Your task to perform on an android device: Check the weather Image 0: 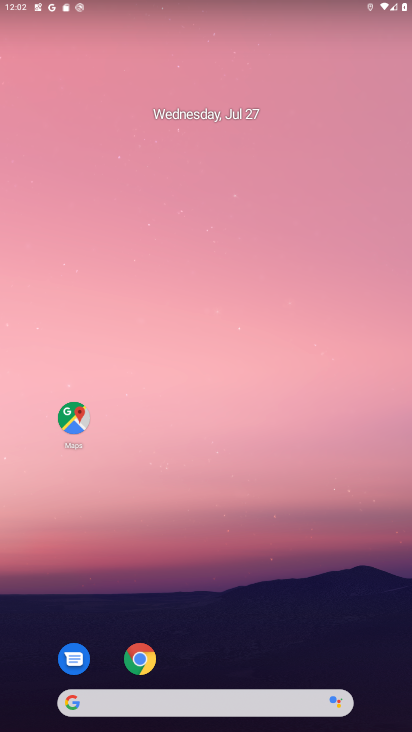
Step 0: drag from (184, 705) to (205, 56)
Your task to perform on an android device: Check the weather Image 1: 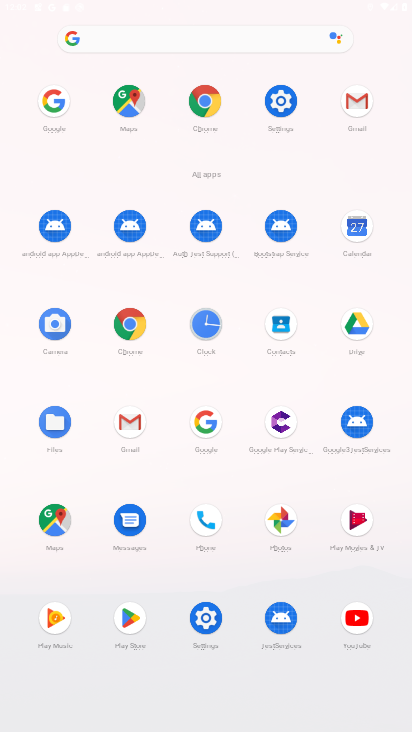
Step 1: click (137, 326)
Your task to perform on an android device: Check the weather Image 2: 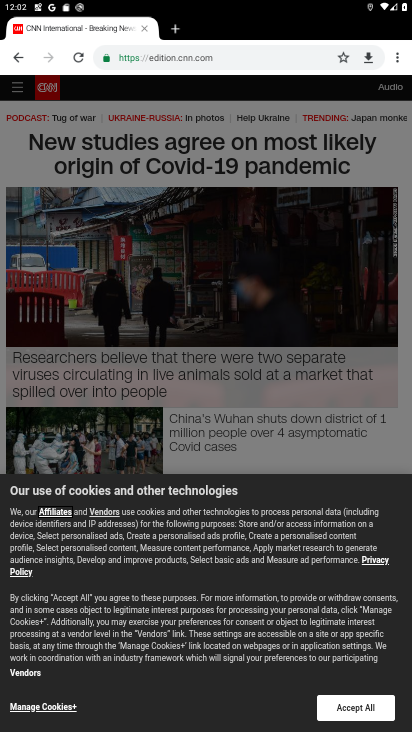
Step 2: click (239, 66)
Your task to perform on an android device: Check the weather Image 3: 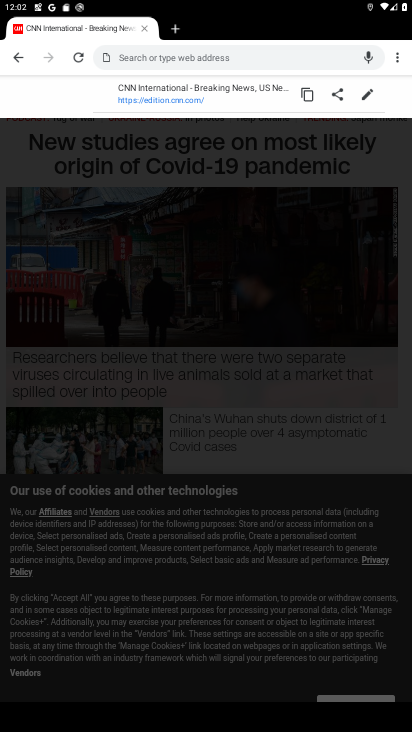
Step 3: type "check the weather"
Your task to perform on an android device: Check the weather Image 4: 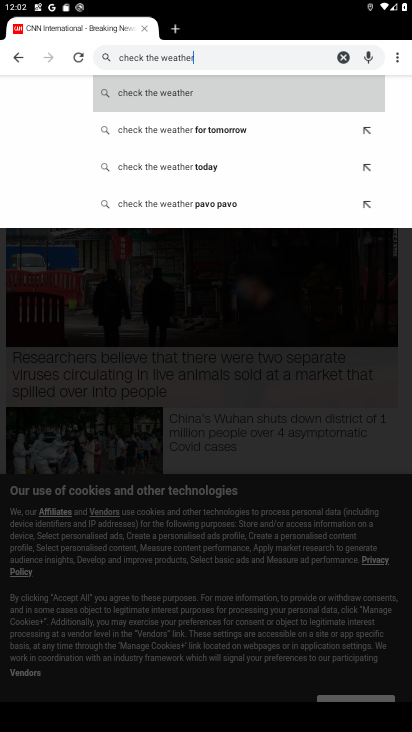
Step 4: click (202, 80)
Your task to perform on an android device: Check the weather Image 5: 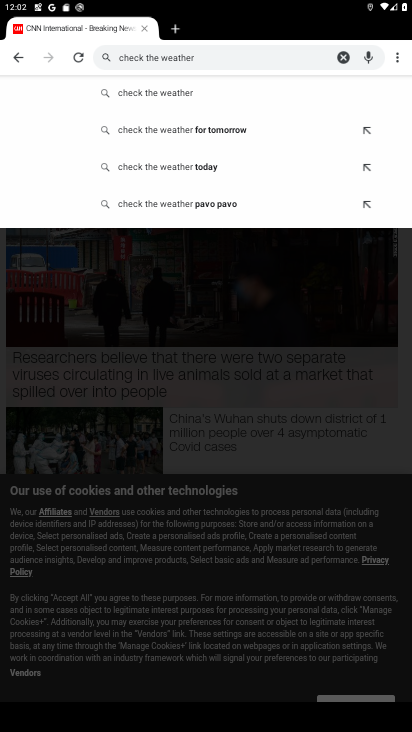
Step 5: click (175, 91)
Your task to perform on an android device: Check the weather Image 6: 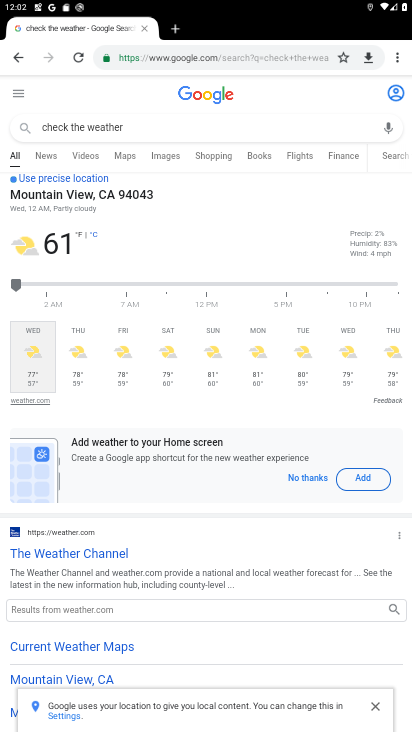
Step 6: task complete